Your task to perform on an android device: Open CNN.com Image 0: 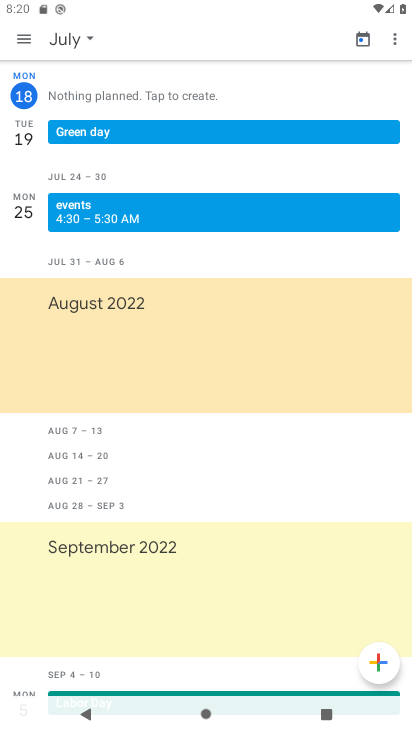
Step 0: press home button
Your task to perform on an android device: Open CNN.com Image 1: 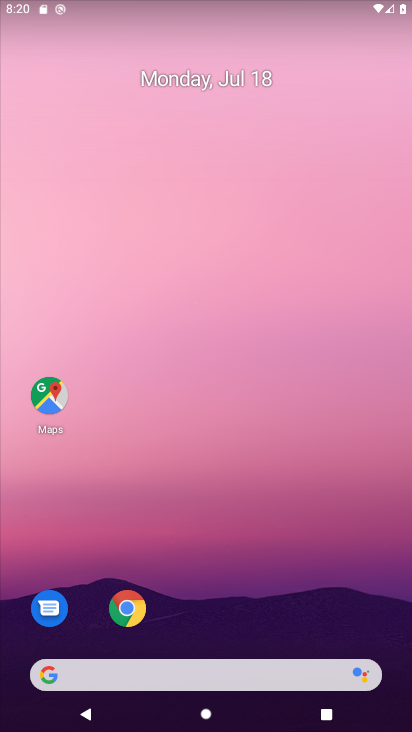
Step 1: click (126, 607)
Your task to perform on an android device: Open CNN.com Image 2: 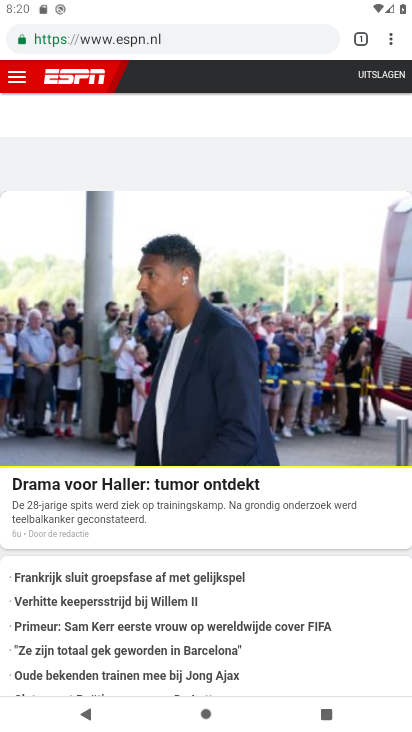
Step 2: click (228, 32)
Your task to perform on an android device: Open CNN.com Image 3: 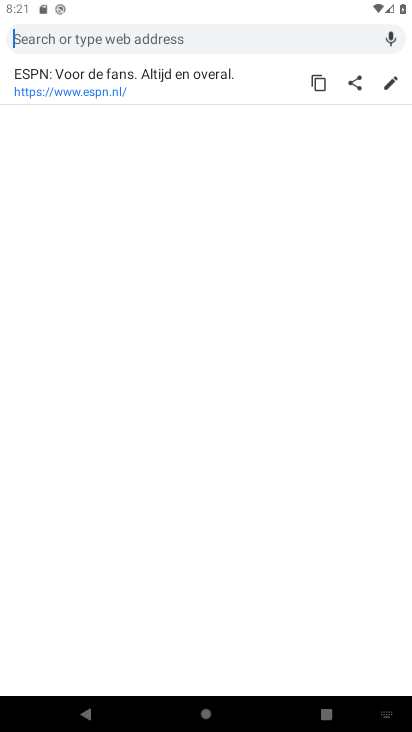
Step 3: type "CNN.com"
Your task to perform on an android device: Open CNN.com Image 4: 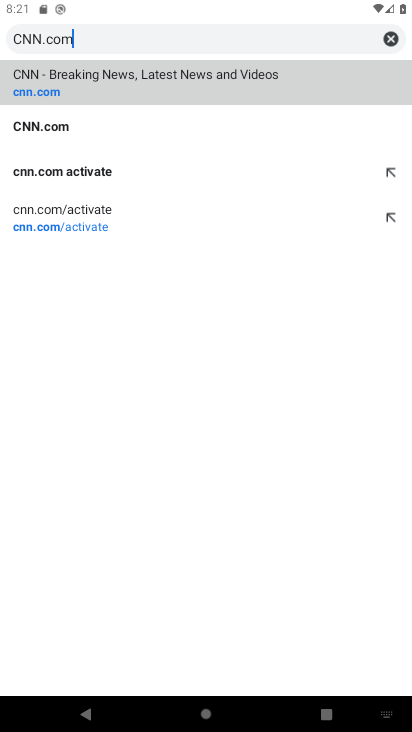
Step 4: click (24, 125)
Your task to perform on an android device: Open CNN.com Image 5: 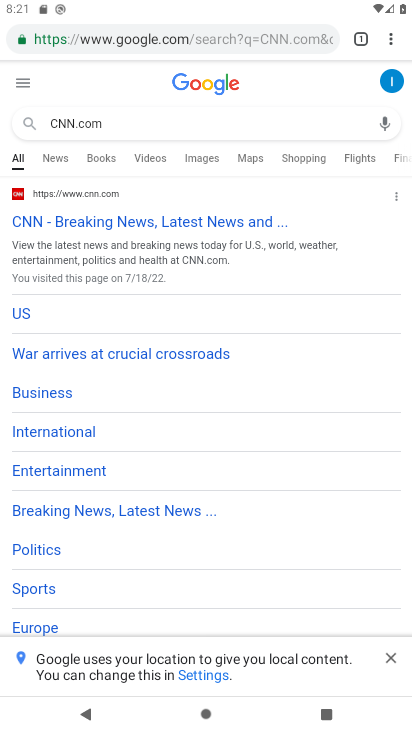
Step 5: click (77, 227)
Your task to perform on an android device: Open CNN.com Image 6: 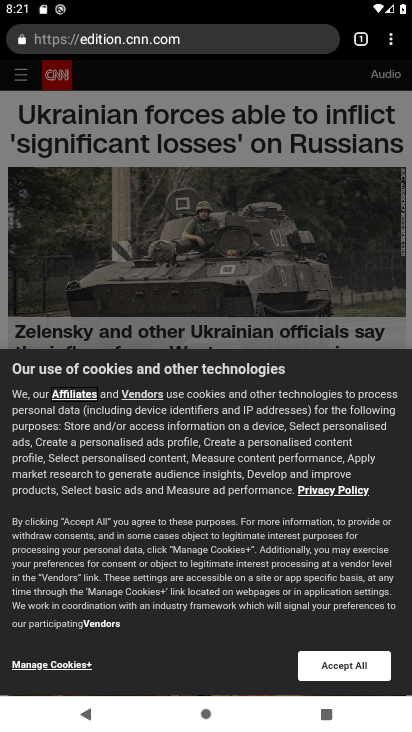
Step 6: click (329, 664)
Your task to perform on an android device: Open CNN.com Image 7: 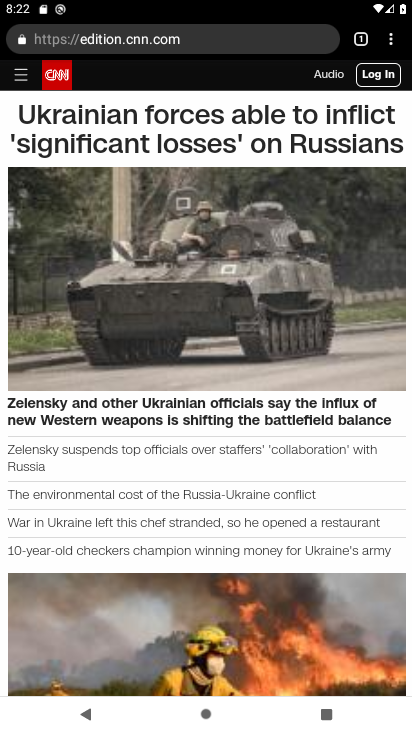
Step 7: task complete